Your task to perform on an android device: Is it going to rain today? Image 0: 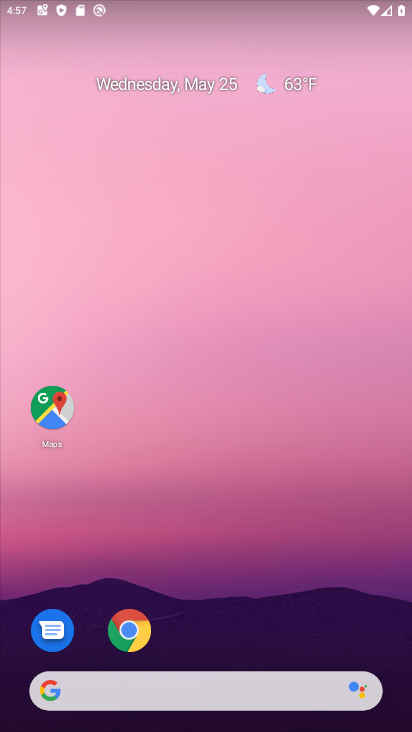
Step 0: click (263, 80)
Your task to perform on an android device: Is it going to rain today? Image 1: 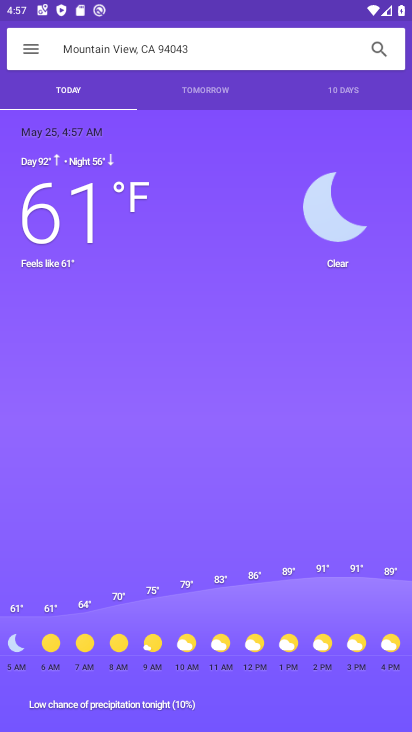
Step 1: task complete